Your task to perform on an android device: change the clock style Image 0: 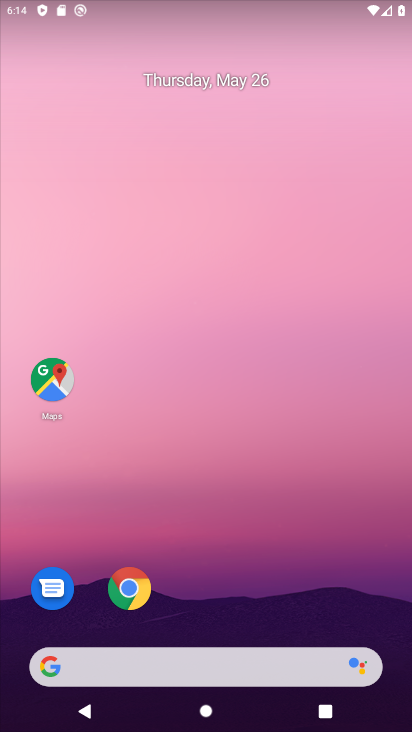
Step 0: drag from (356, 645) to (318, 1)
Your task to perform on an android device: change the clock style Image 1: 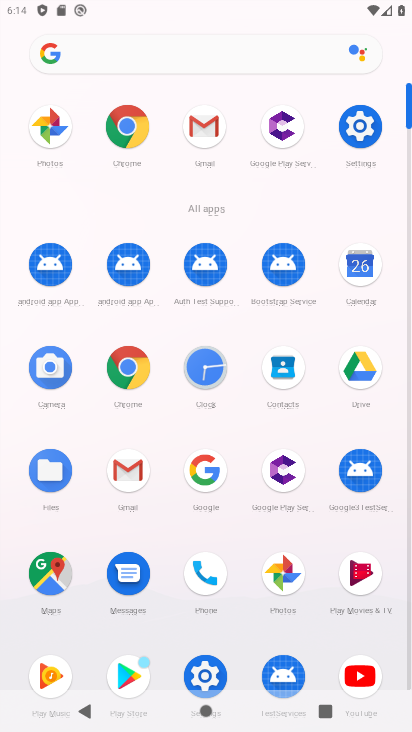
Step 1: click (203, 363)
Your task to perform on an android device: change the clock style Image 2: 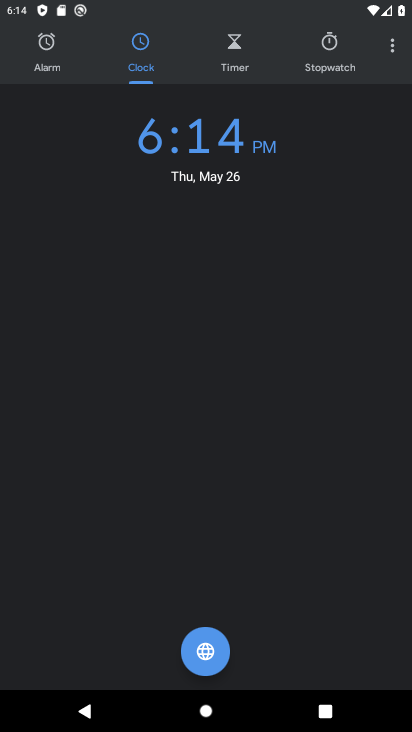
Step 2: click (389, 45)
Your task to perform on an android device: change the clock style Image 3: 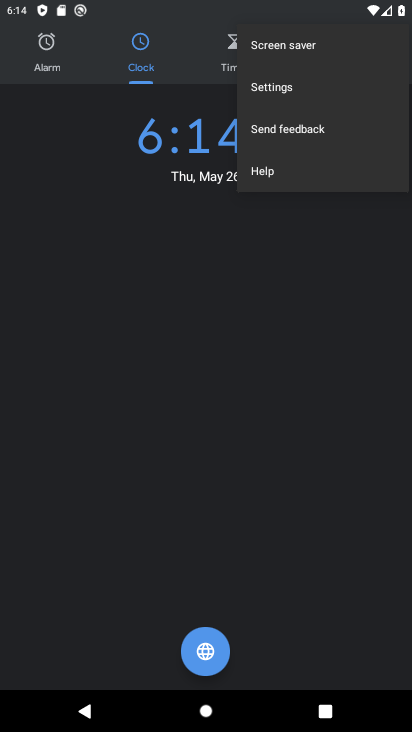
Step 3: click (316, 89)
Your task to perform on an android device: change the clock style Image 4: 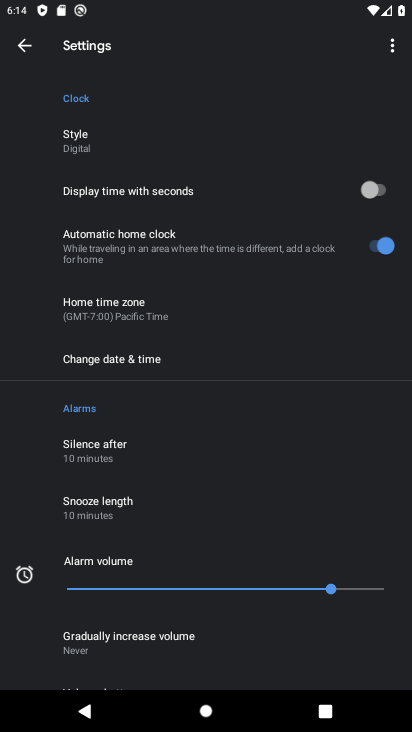
Step 4: click (105, 149)
Your task to perform on an android device: change the clock style Image 5: 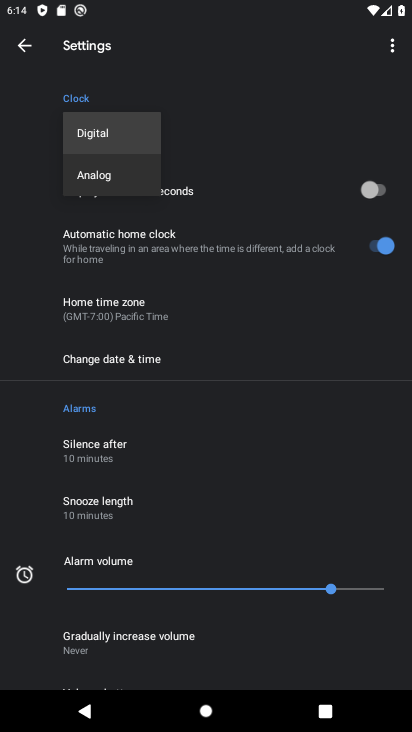
Step 5: click (102, 178)
Your task to perform on an android device: change the clock style Image 6: 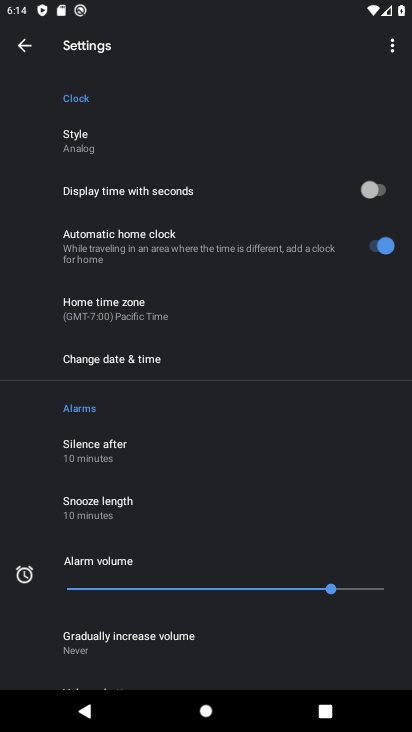
Step 6: task complete